Your task to perform on an android device: delete the emails in spam in the gmail app Image 0: 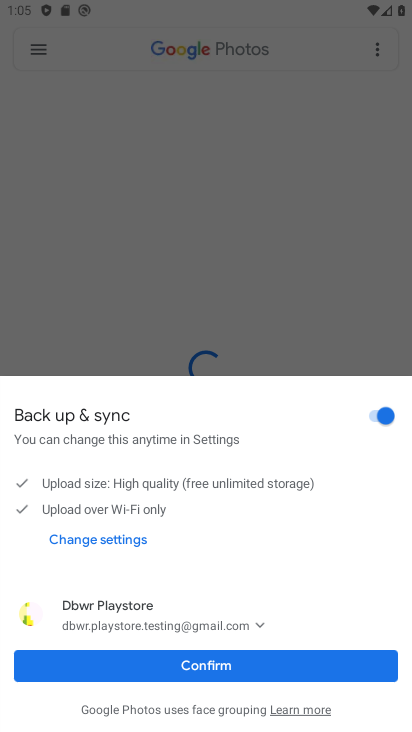
Step 0: click (234, 656)
Your task to perform on an android device: delete the emails in spam in the gmail app Image 1: 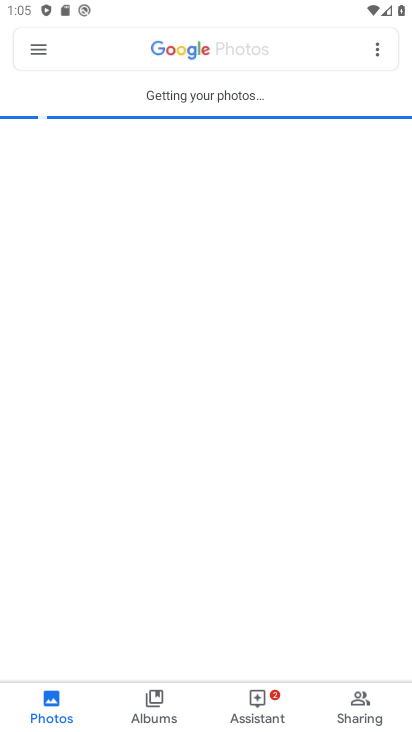
Step 1: press home button
Your task to perform on an android device: delete the emails in spam in the gmail app Image 2: 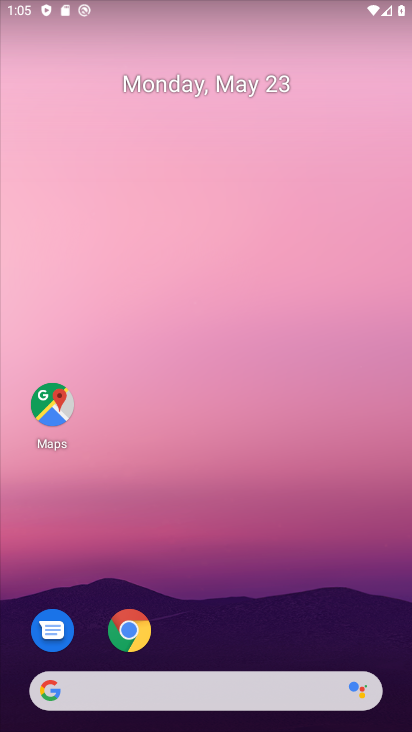
Step 2: drag from (223, 595) to (230, 193)
Your task to perform on an android device: delete the emails in spam in the gmail app Image 3: 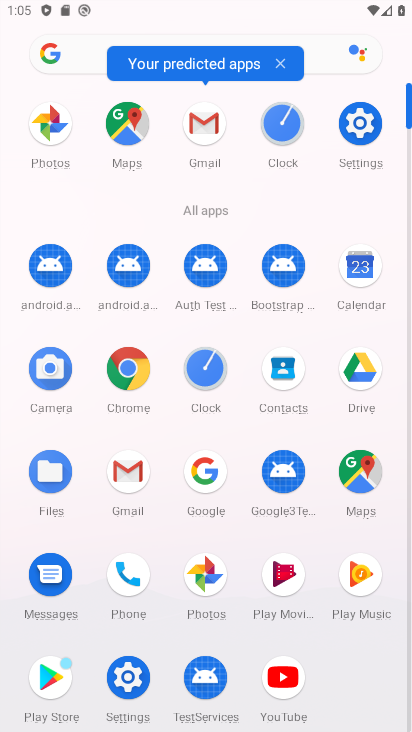
Step 3: click (128, 466)
Your task to perform on an android device: delete the emails in spam in the gmail app Image 4: 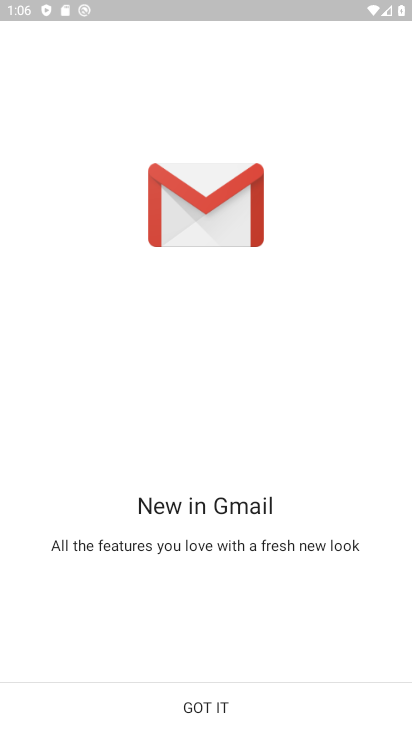
Step 4: click (215, 697)
Your task to perform on an android device: delete the emails in spam in the gmail app Image 5: 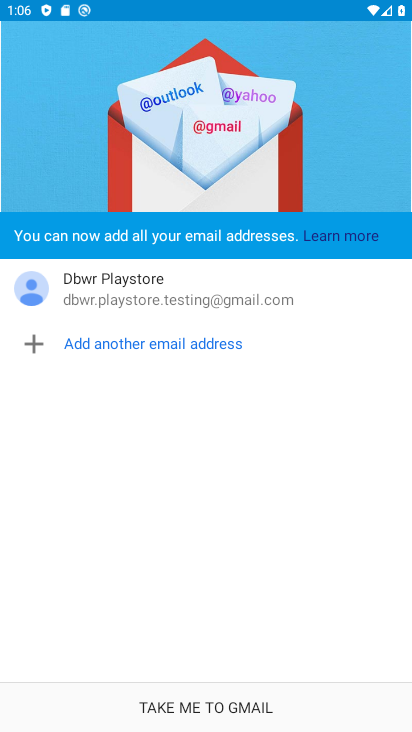
Step 5: click (190, 704)
Your task to perform on an android device: delete the emails in spam in the gmail app Image 6: 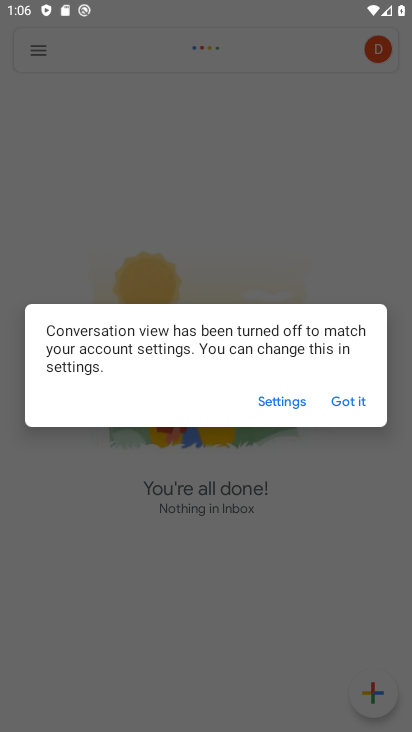
Step 6: click (361, 400)
Your task to perform on an android device: delete the emails in spam in the gmail app Image 7: 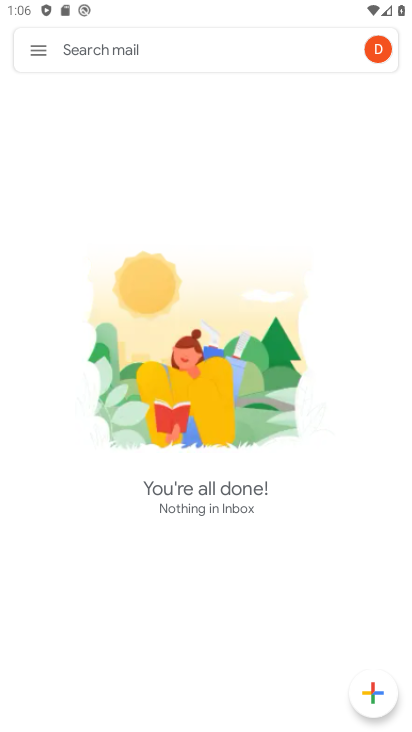
Step 7: click (34, 48)
Your task to perform on an android device: delete the emails in spam in the gmail app Image 8: 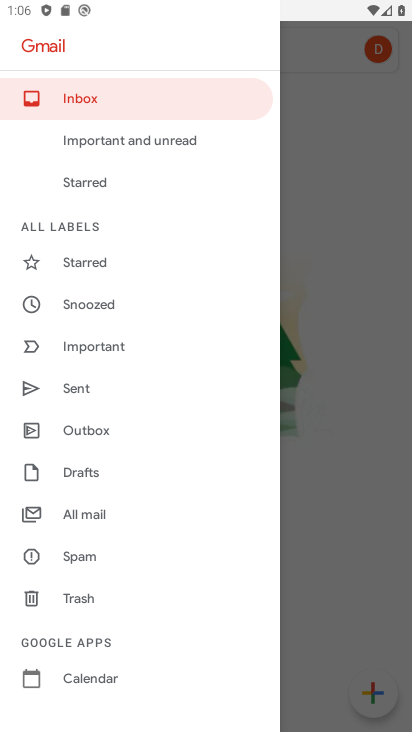
Step 8: click (87, 549)
Your task to perform on an android device: delete the emails in spam in the gmail app Image 9: 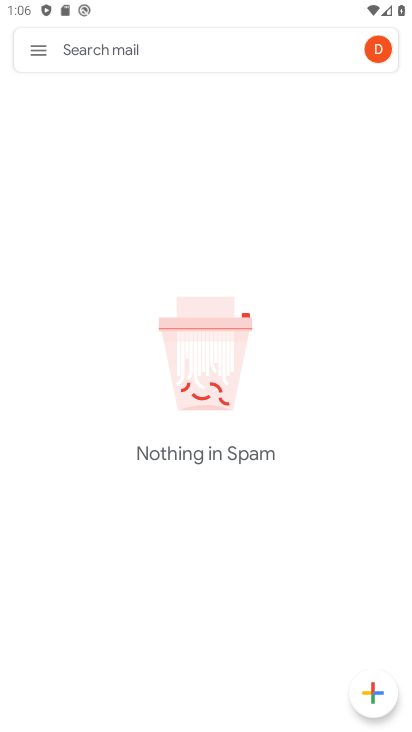
Step 9: task complete